Your task to perform on an android device: make emails show in primary in the gmail app Image 0: 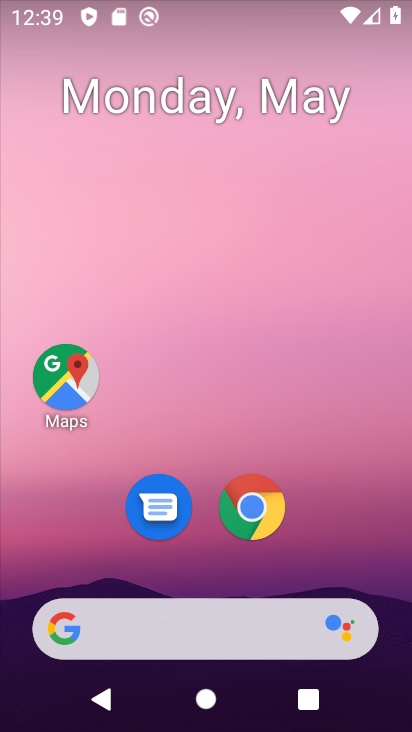
Step 0: drag from (217, 723) to (195, 211)
Your task to perform on an android device: make emails show in primary in the gmail app Image 1: 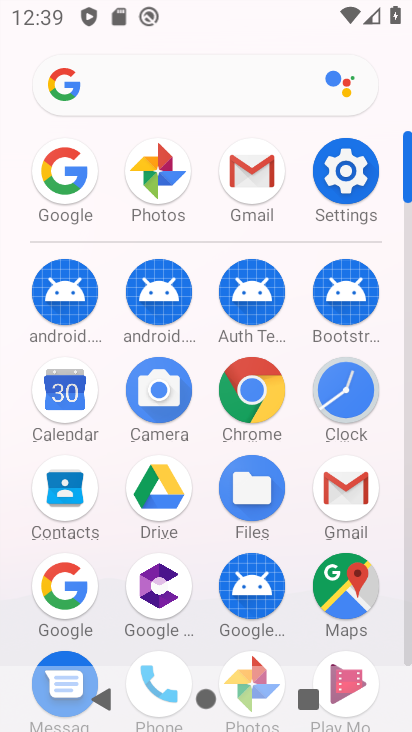
Step 1: click (341, 482)
Your task to perform on an android device: make emails show in primary in the gmail app Image 2: 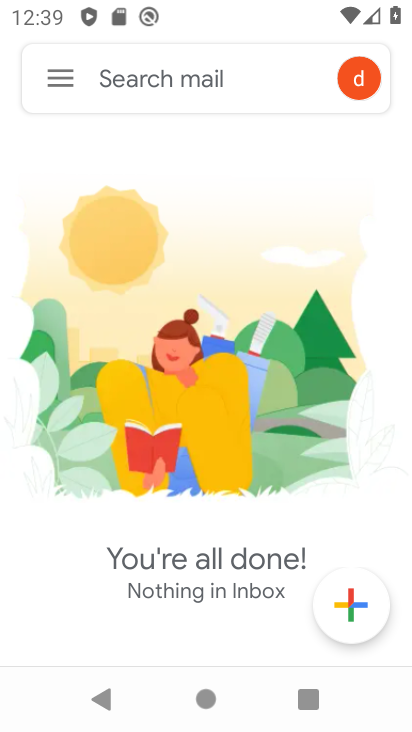
Step 2: click (62, 79)
Your task to perform on an android device: make emails show in primary in the gmail app Image 3: 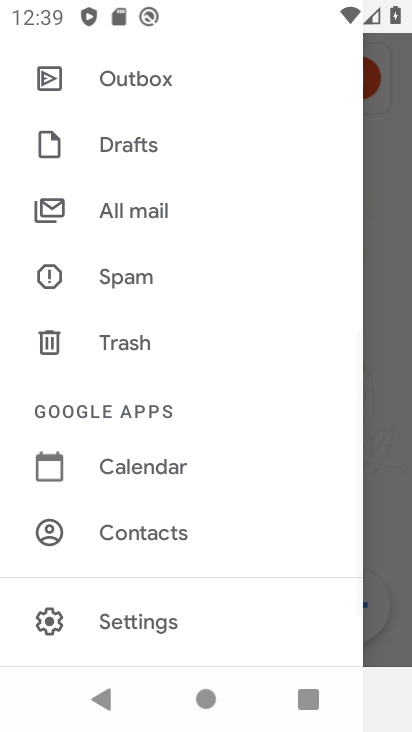
Step 3: click (125, 616)
Your task to perform on an android device: make emails show in primary in the gmail app Image 4: 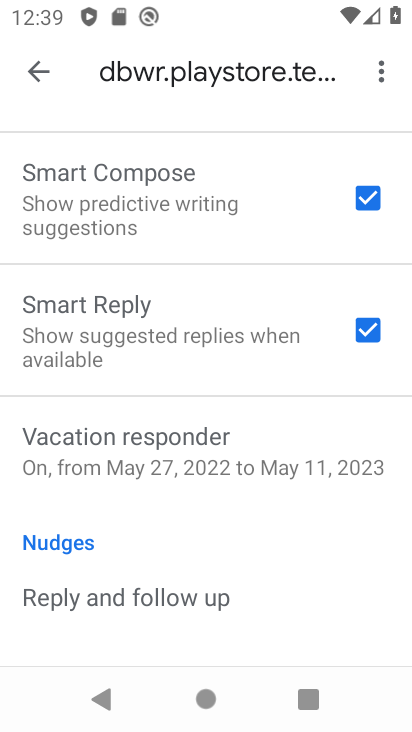
Step 4: drag from (187, 145) to (230, 520)
Your task to perform on an android device: make emails show in primary in the gmail app Image 5: 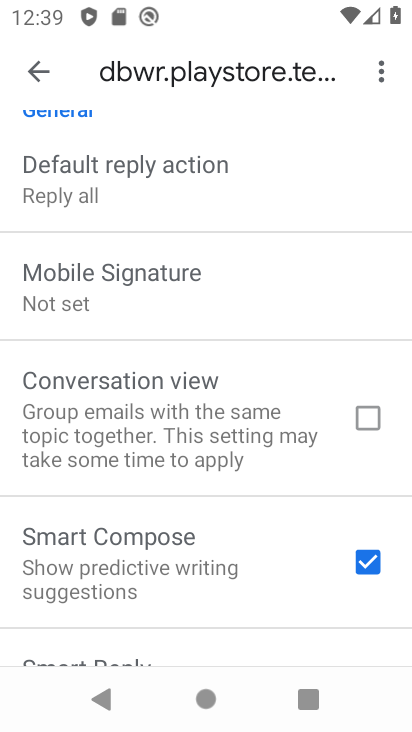
Step 5: drag from (194, 136) to (236, 558)
Your task to perform on an android device: make emails show in primary in the gmail app Image 6: 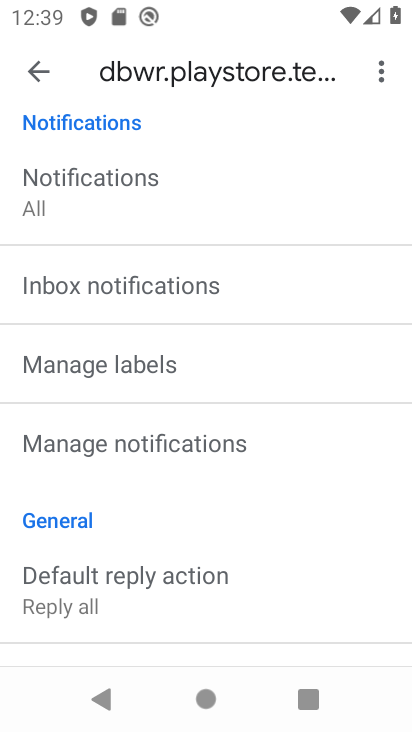
Step 6: drag from (194, 144) to (195, 603)
Your task to perform on an android device: make emails show in primary in the gmail app Image 7: 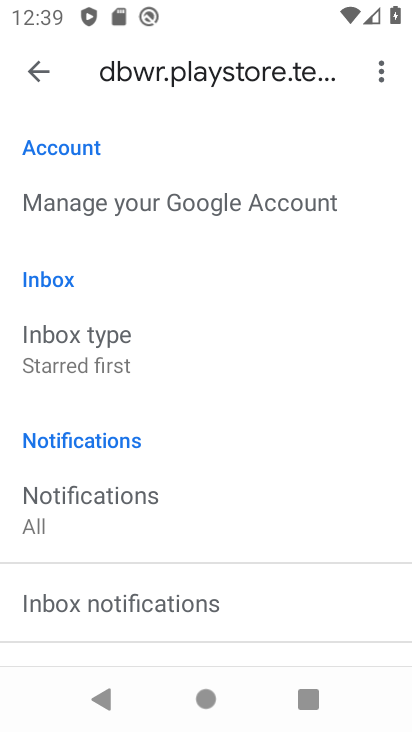
Step 7: click (54, 354)
Your task to perform on an android device: make emails show in primary in the gmail app Image 8: 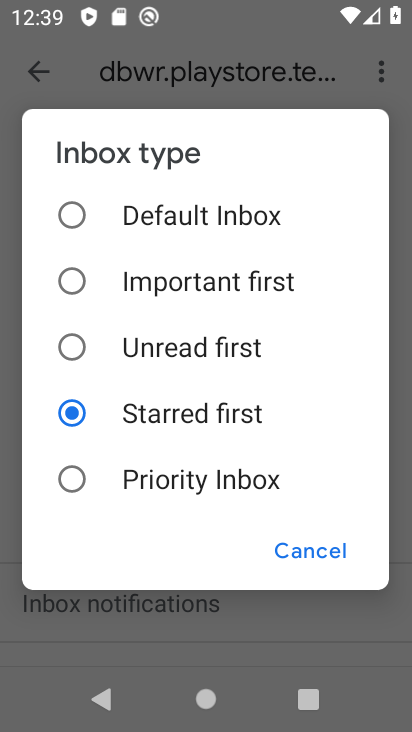
Step 8: click (67, 207)
Your task to perform on an android device: make emails show in primary in the gmail app Image 9: 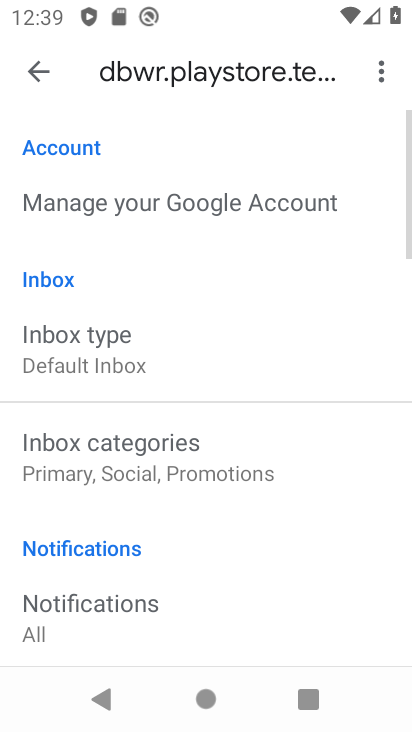
Step 9: click (124, 451)
Your task to perform on an android device: make emails show in primary in the gmail app Image 10: 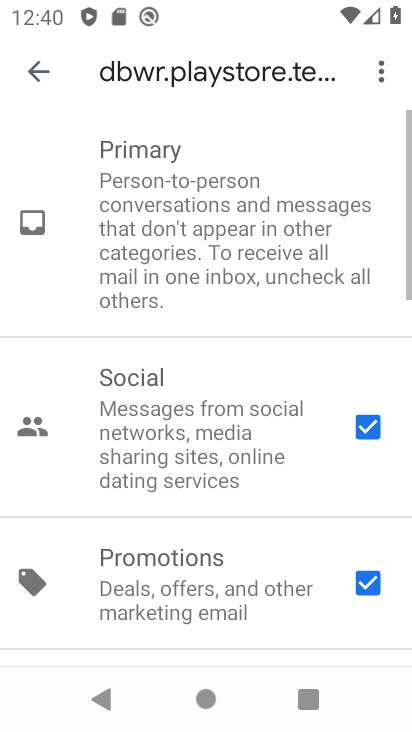
Step 10: click (375, 419)
Your task to perform on an android device: make emails show in primary in the gmail app Image 11: 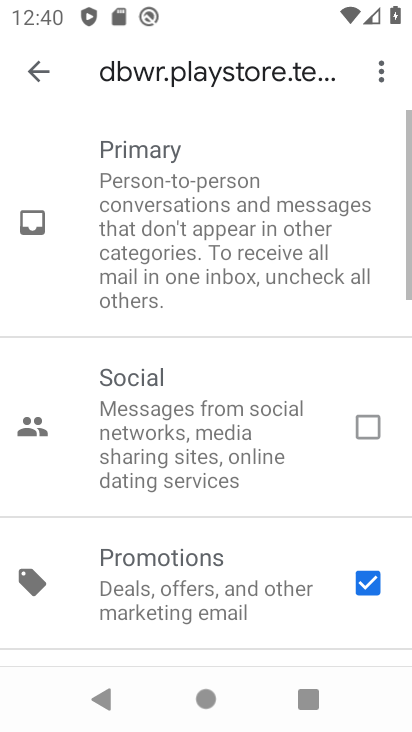
Step 11: click (365, 574)
Your task to perform on an android device: make emails show in primary in the gmail app Image 12: 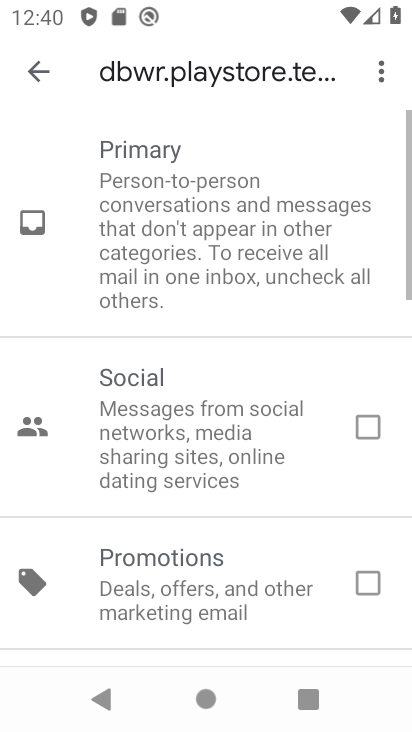
Step 12: drag from (224, 602) to (203, 253)
Your task to perform on an android device: make emails show in primary in the gmail app Image 13: 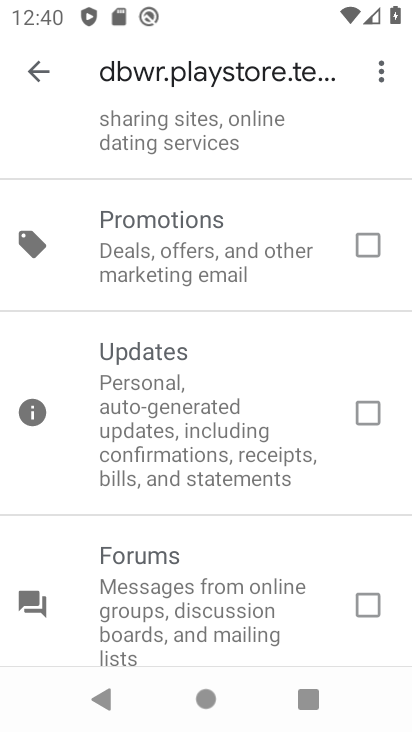
Step 13: click (35, 63)
Your task to perform on an android device: make emails show in primary in the gmail app Image 14: 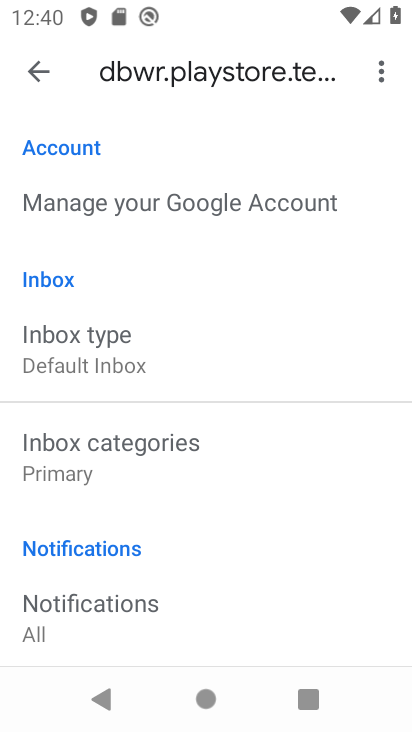
Step 14: task complete